Your task to perform on an android device: show emergency info Image 0: 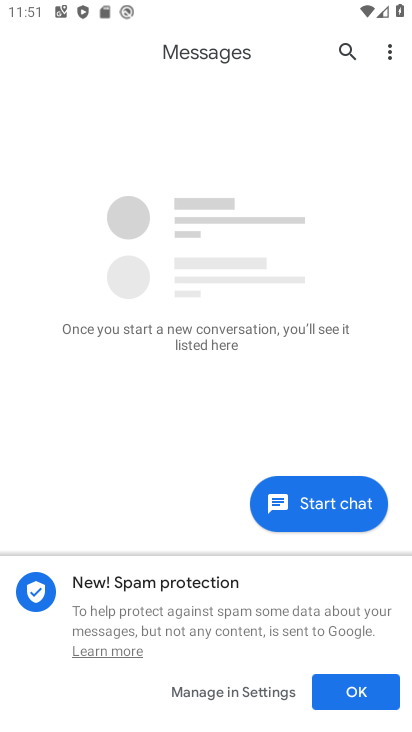
Step 0: press home button
Your task to perform on an android device: show emergency info Image 1: 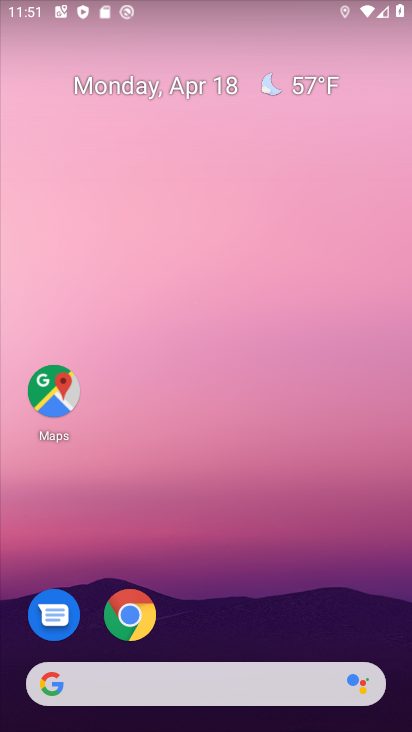
Step 1: drag from (255, 615) to (255, 112)
Your task to perform on an android device: show emergency info Image 2: 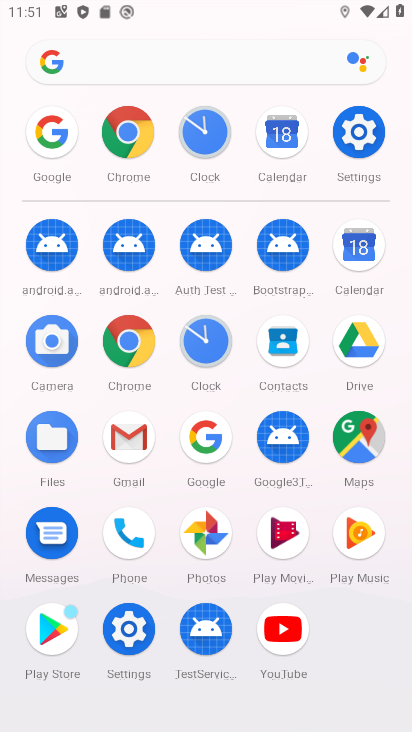
Step 2: click (361, 137)
Your task to perform on an android device: show emergency info Image 3: 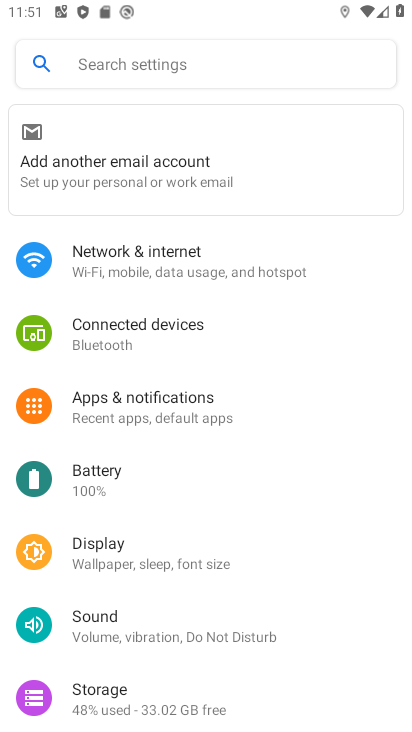
Step 3: drag from (282, 594) to (286, 204)
Your task to perform on an android device: show emergency info Image 4: 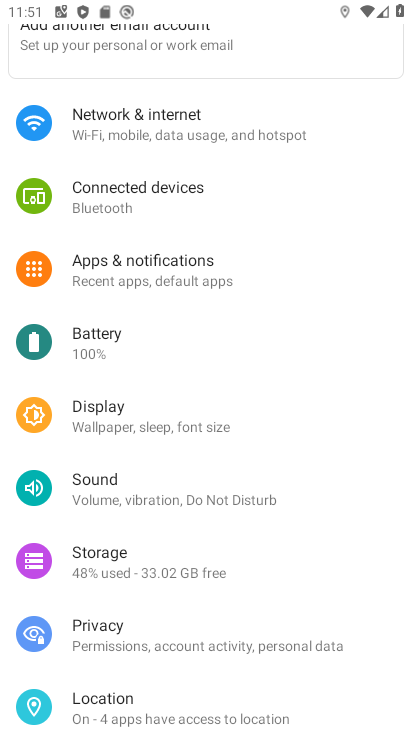
Step 4: drag from (230, 555) to (234, 207)
Your task to perform on an android device: show emergency info Image 5: 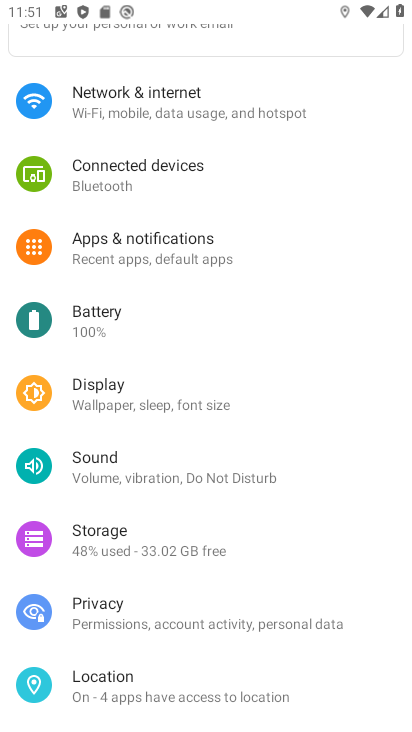
Step 5: drag from (224, 642) to (231, 243)
Your task to perform on an android device: show emergency info Image 6: 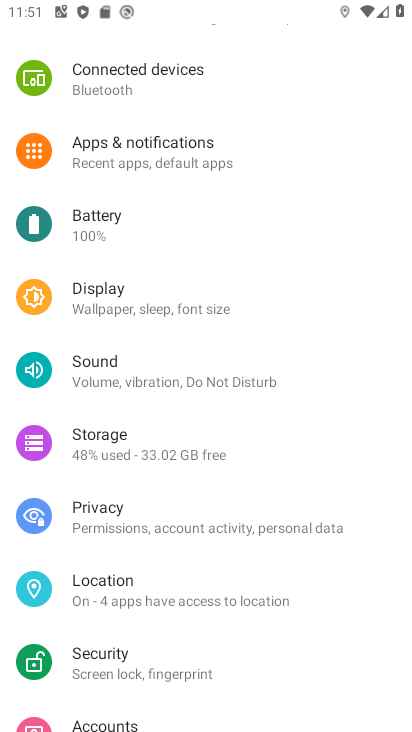
Step 6: drag from (240, 623) to (240, 193)
Your task to perform on an android device: show emergency info Image 7: 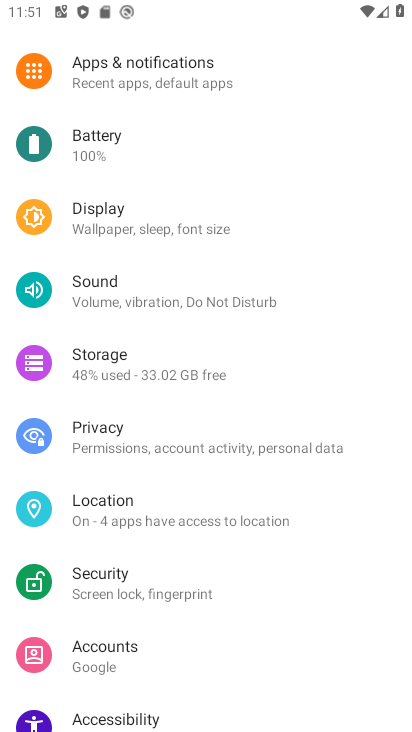
Step 7: drag from (227, 588) to (233, 95)
Your task to perform on an android device: show emergency info Image 8: 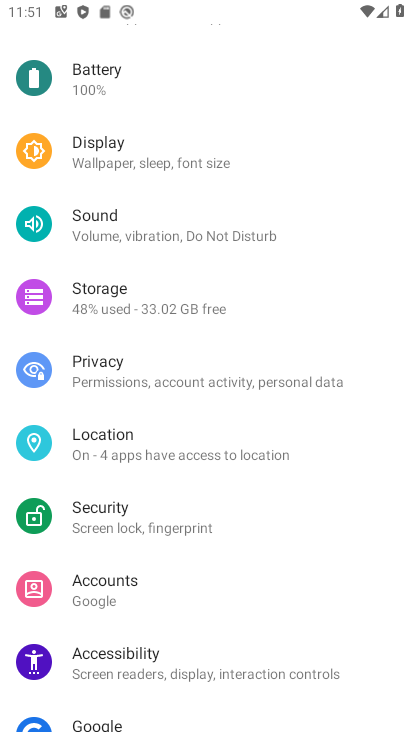
Step 8: drag from (233, 475) to (237, 37)
Your task to perform on an android device: show emergency info Image 9: 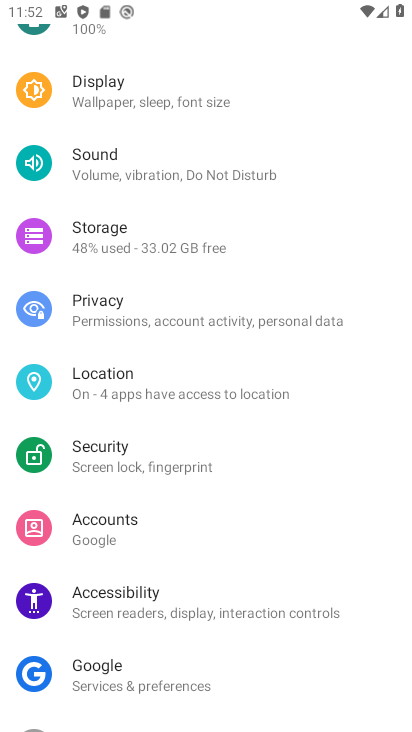
Step 9: drag from (175, 498) to (208, 64)
Your task to perform on an android device: show emergency info Image 10: 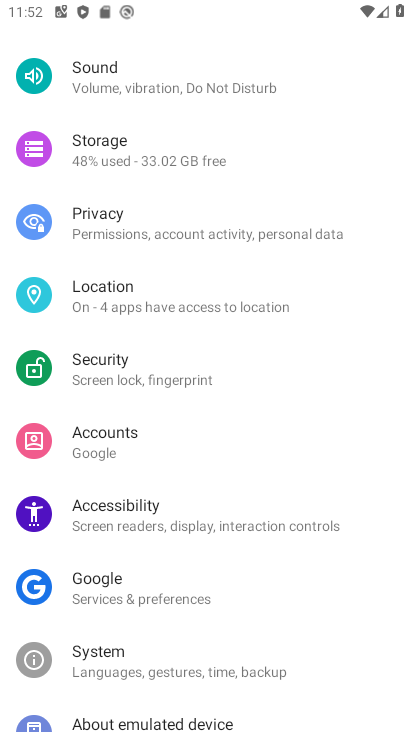
Step 10: drag from (218, 556) to (254, 107)
Your task to perform on an android device: show emergency info Image 11: 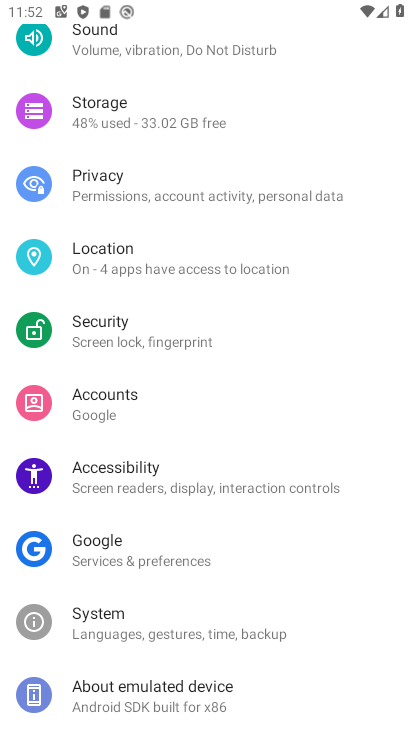
Step 11: click (182, 679)
Your task to perform on an android device: show emergency info Image 12: 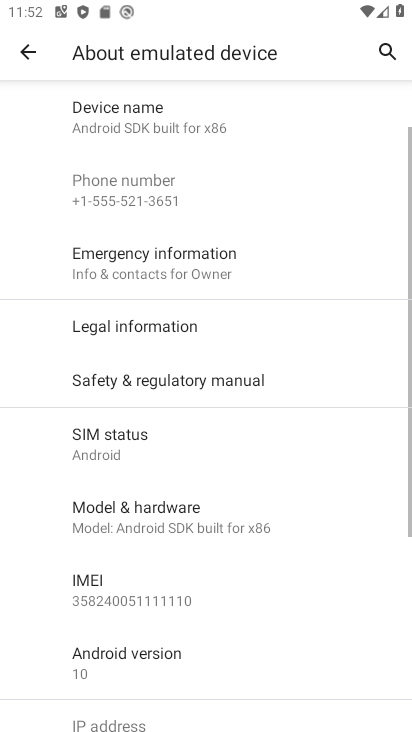
Step 12: click (178, 261)
Your task to perform on an android device: show emergency info Image 13: 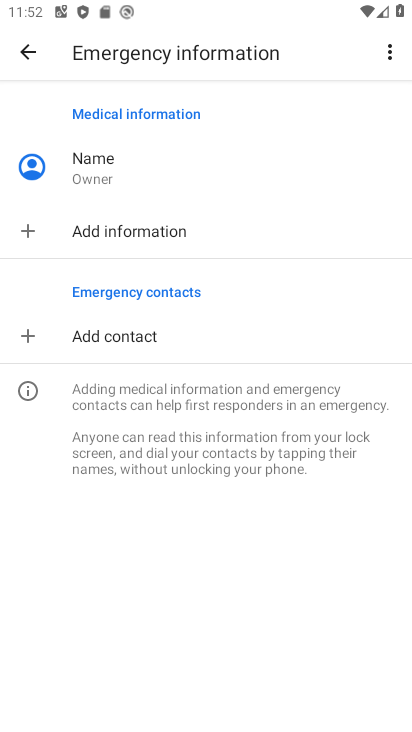
Step 13: task complete